Your task to perform on an android device: Open Reddit.com Image 0: 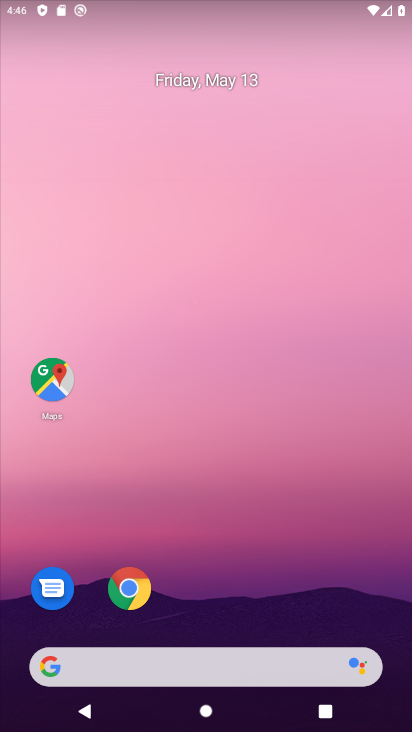
Step 0: click (149, 658)
Your task to perform on an android device: Open Reddit.com Image 1: 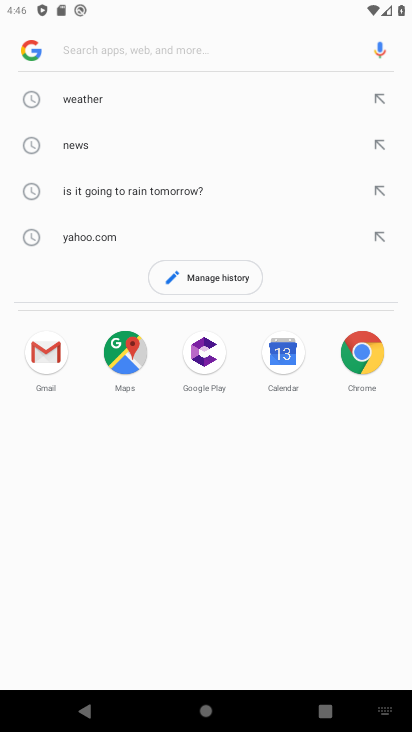
Step 1: type "Reddit.com"
Your task to perform on an android device: Open Reddit.com Image 2: 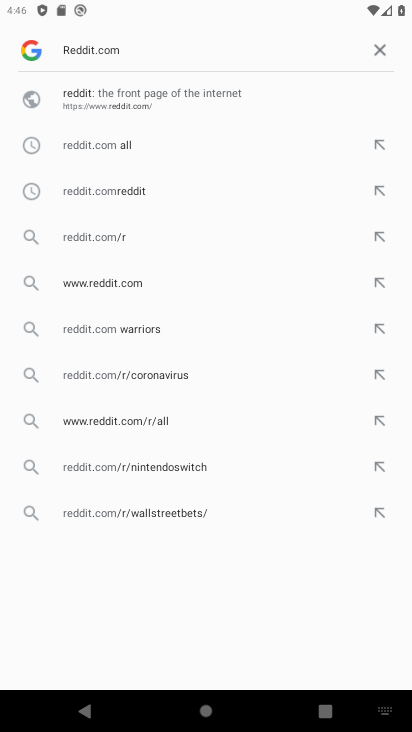
Step 2: click (105, 114)
Your task to perform on an android device: Open Reddit.com Image 3: 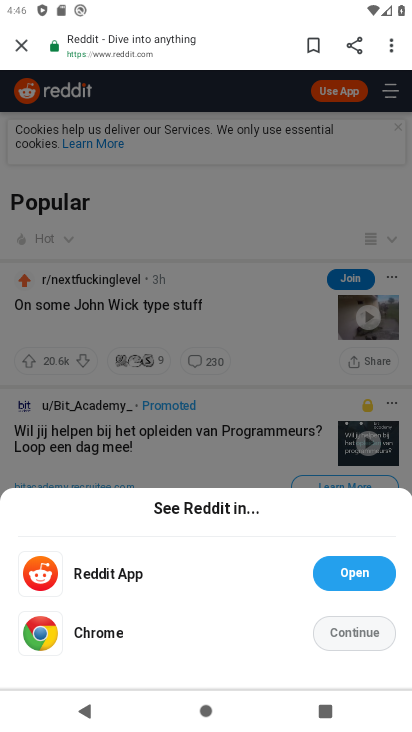
Step 3: click (378, 639)
Your task to perform on an android device: Open Reddit.com Image 4: 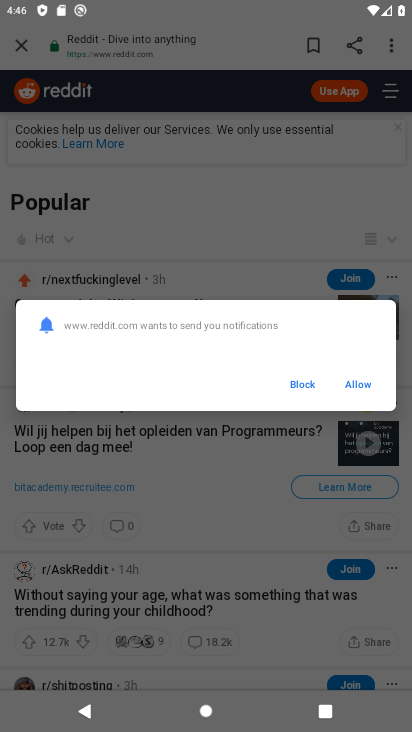
Step 4: click (366, 389)
Your task to perform on an android device: Open Reddit.com Image 5: 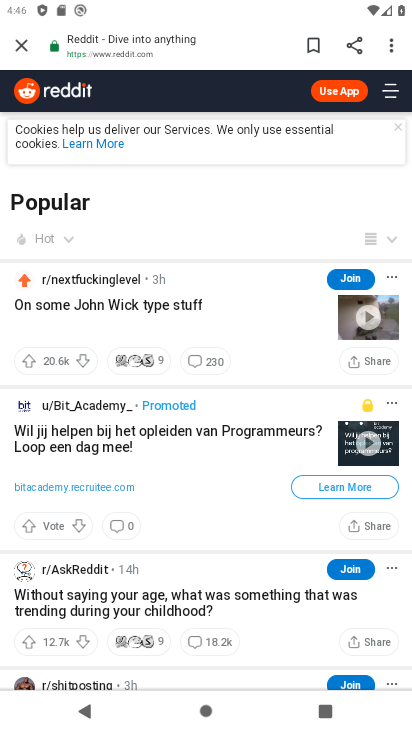
Step 5: task complete